Your task to perform on an android device: change keyboard looks Image 0: 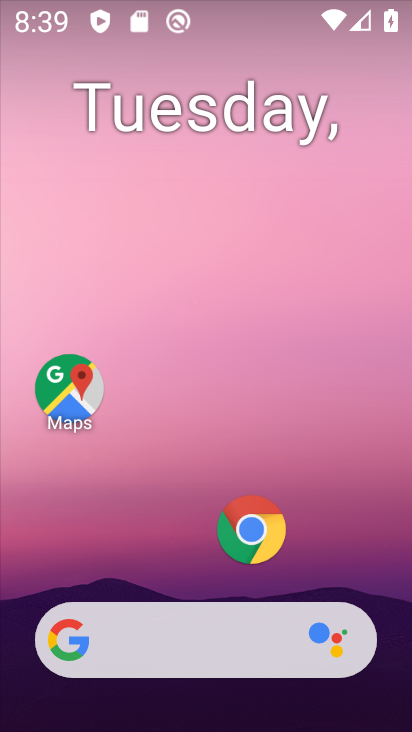
Step 0: drag from (184, 574) to (181, 54)
Your task to perform on an android device: change keyboard looks Image 1: 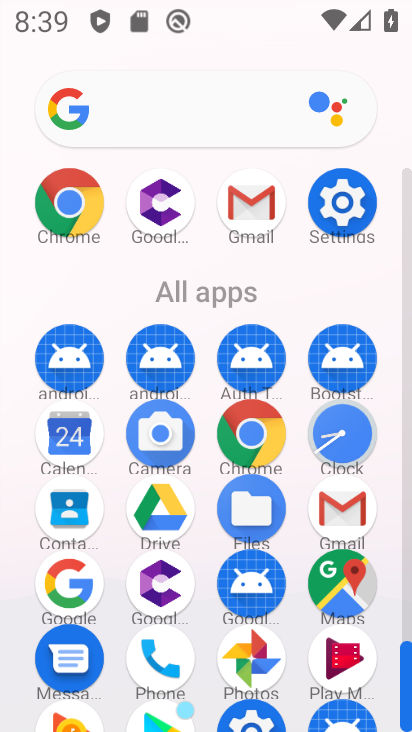
Step 1: click (342, 195)
Your task to perform on an android device: change keyboard looks Image 2: 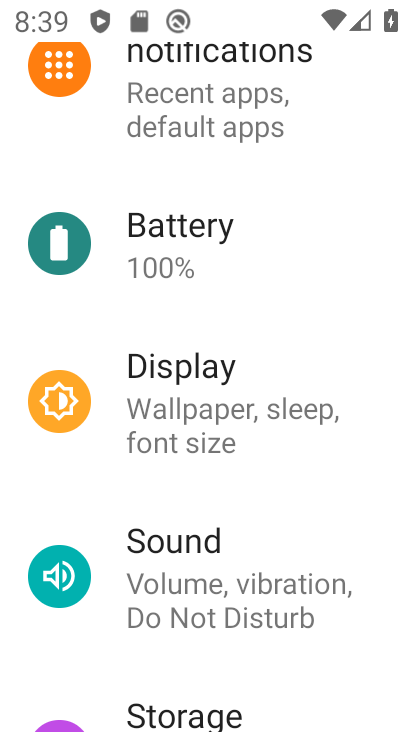
Step 2: drag from (245, 666) to (244, 107)
Your task to perform on an android device: change keyboard looks Image 3: 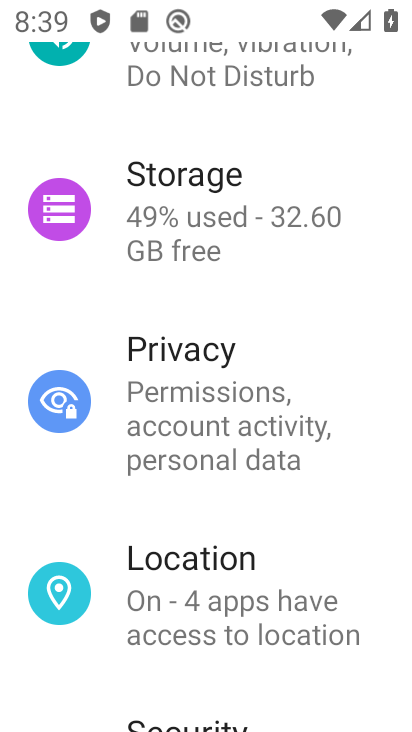
Step 3: drag from (224, 690) to (224, 108)
Your task to perform on an android device: change keyboard looks Image 4: 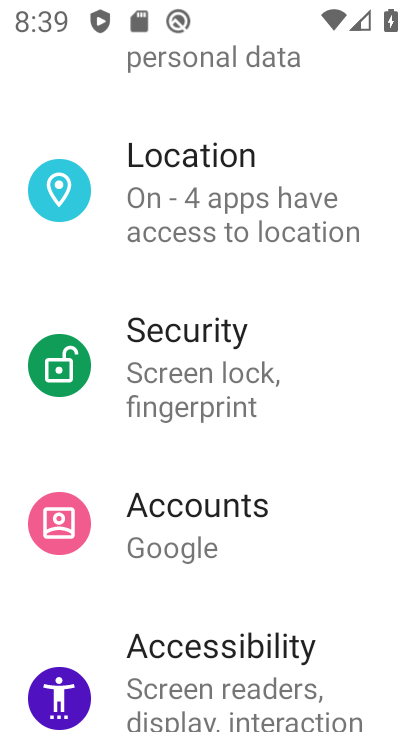
Step 4: drag from (228, 680) to (247, 112)
Your task to perform on an android device: change keyboard looks Image 5: 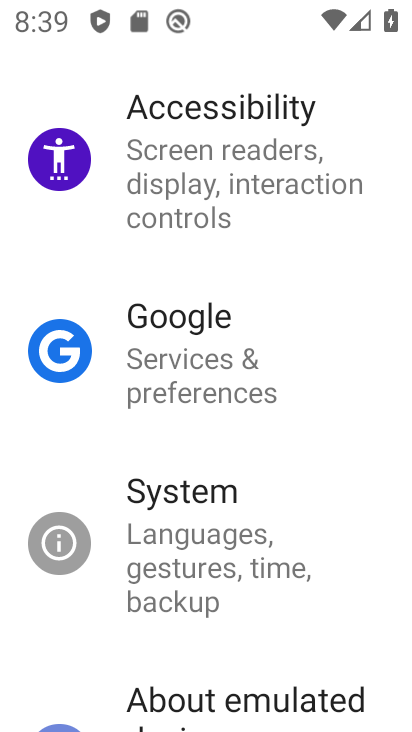
Step 5: click (228, 550)
Your task to perform on an android device: change keyboard looks Image 6: 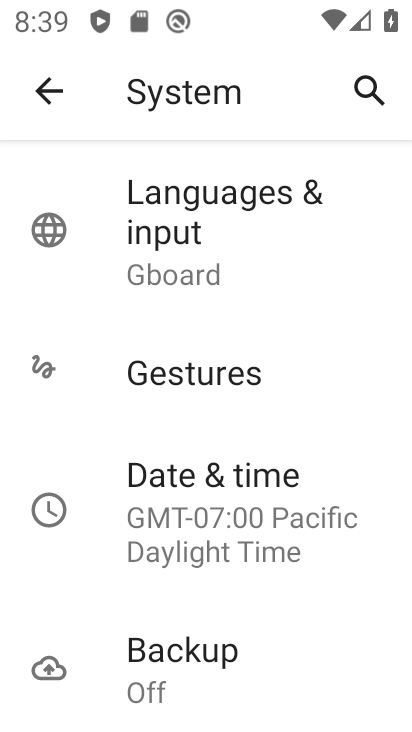
Step 6: click (105, 207)
Your task to perform on an android device: change keyboard looks Image 7: 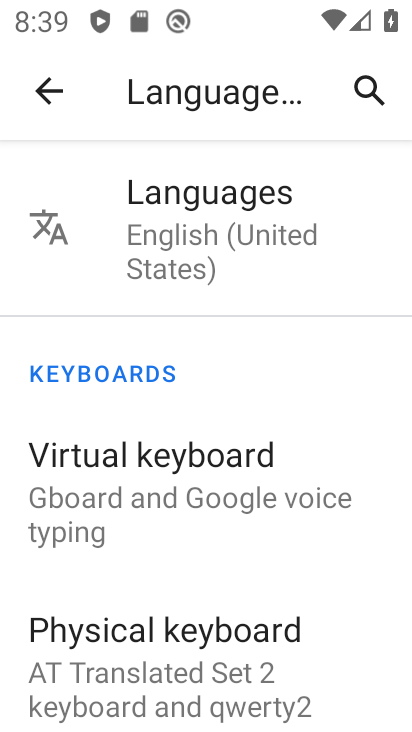
Step 7: click (297, 457)
Your task to perform on an android device: change keyboard looks Image 8: 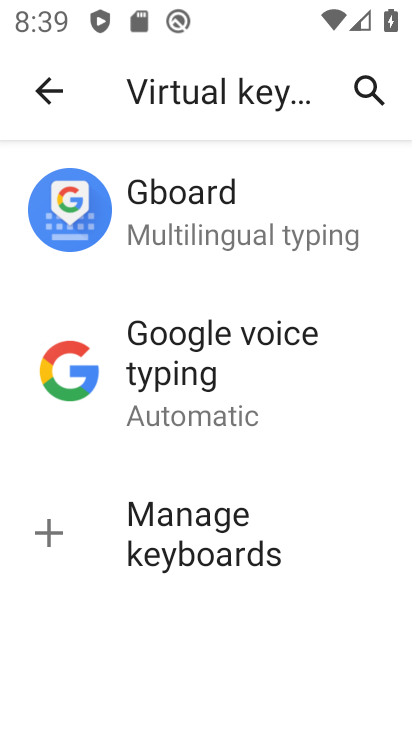
Step 8: click (127, 204)
Your task to perform on an android device: change keyboard looks Image 9: 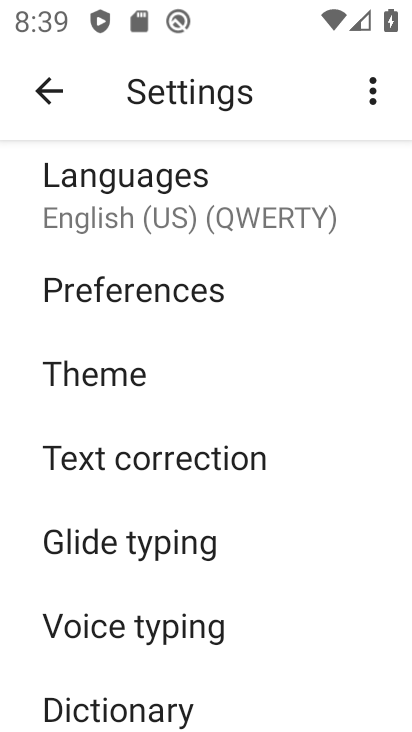
Step 9: click (158, 371)
Your task to perform on an android device: change keyboard looks Image 10: 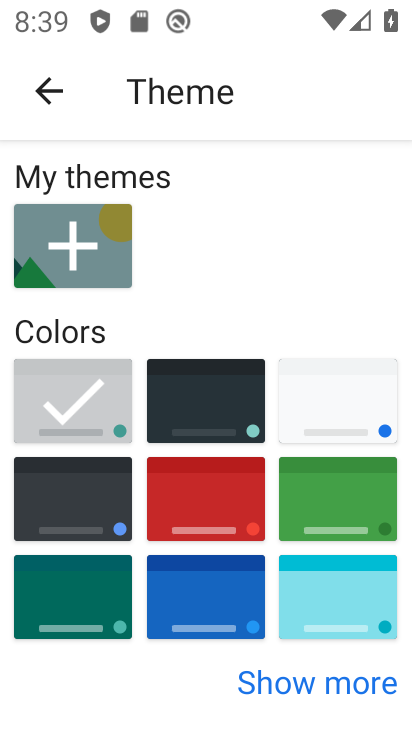
Step 10: click (341, 391)
Your task to perform on an android device: change keyboard looks Image 11: 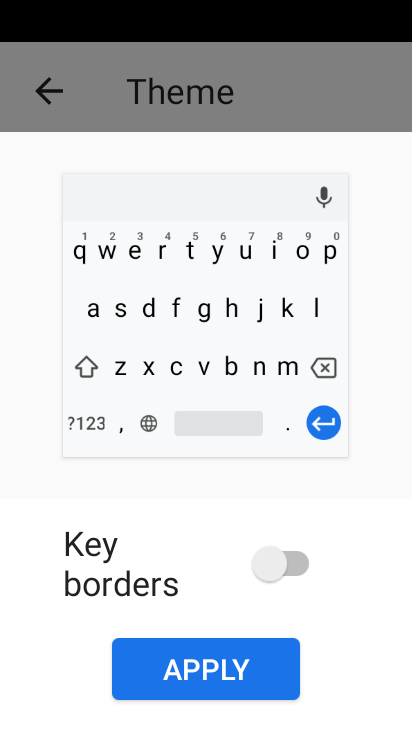
Step 11: click (201, 657)
Your task to perform on an android device: change keyboard looks Image 12: 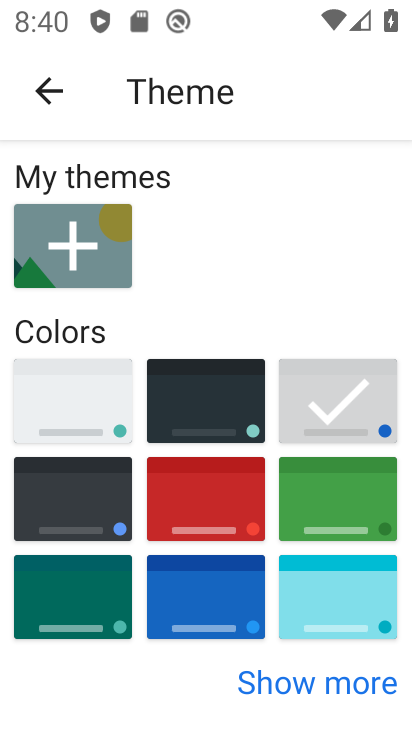
Step 12: task complete